Your task to perform on an android device: toggle notifications settings in the gmail app Image 0: 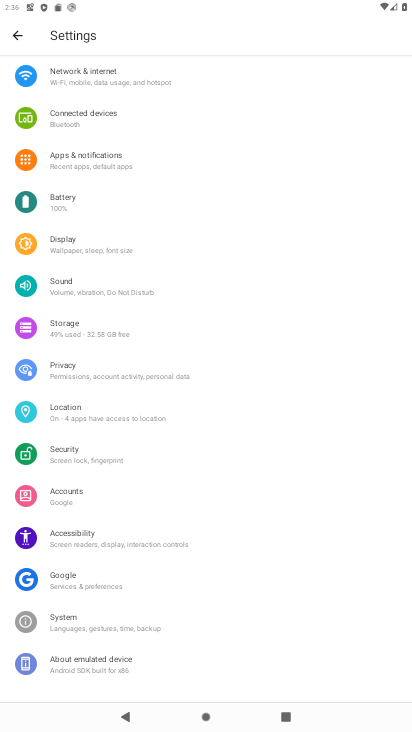
Step 0: press home button
Your task to perform on an android device: toggle notifications settings in the gmail app Image 1: 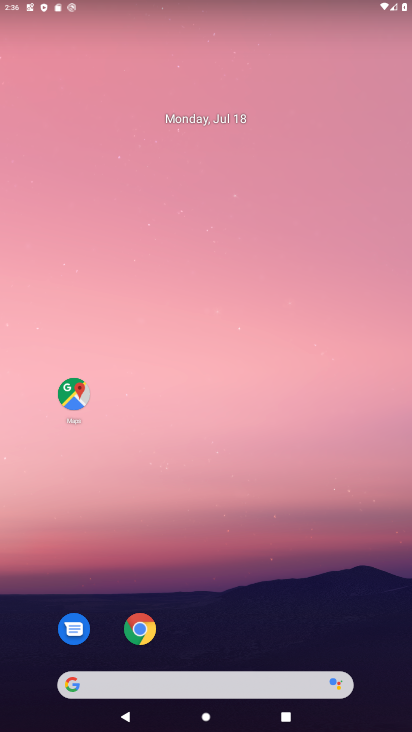
Step 1: drag from (205, 632) to (229, 108)
Your task to perform on an android device: toggle notifications settings in the gmail app Image 2: 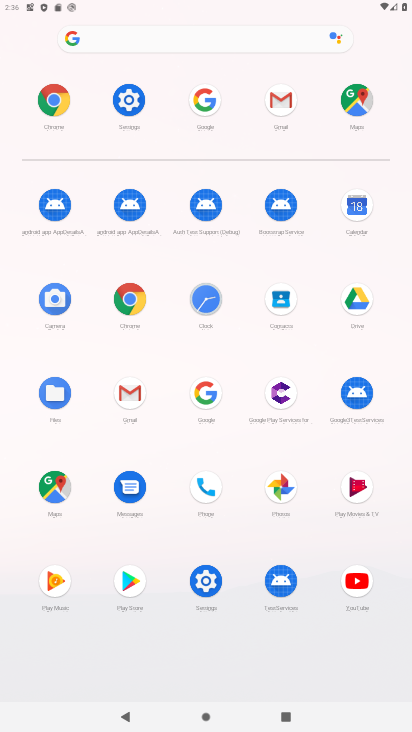
Step 2: click (272, 105)
Your task to perform on an android device: toggle notifications settings in the gmail app Image 3: 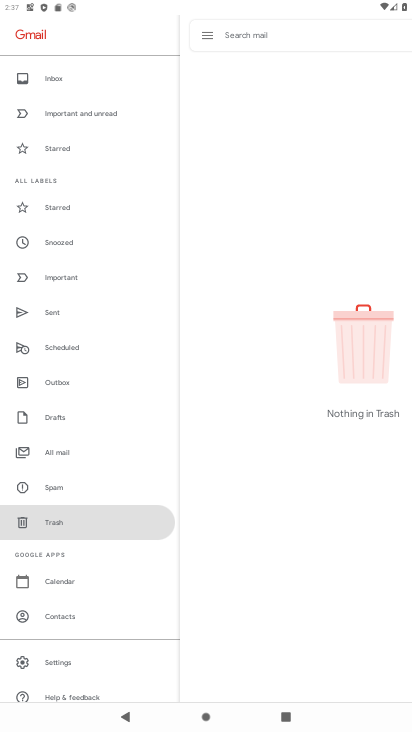
Step 3: click (76, 654)
Your task to perform on an android device: toggle notifications settings in the gmail app Image 4: 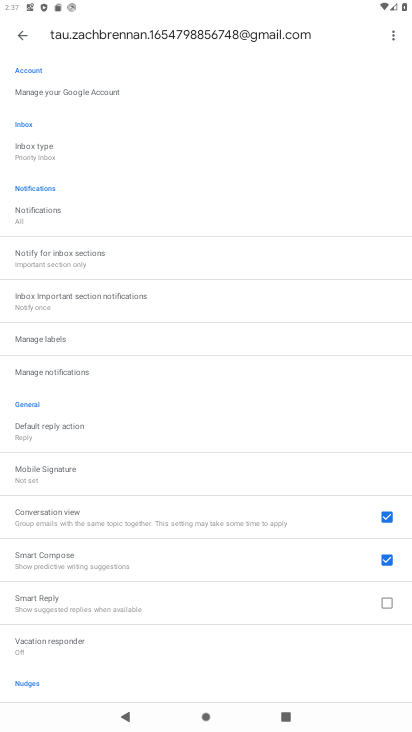
Step 4: click (79, 149)
Your task to perform on an android device: toggle notifications settings in the gmail app Image 5: 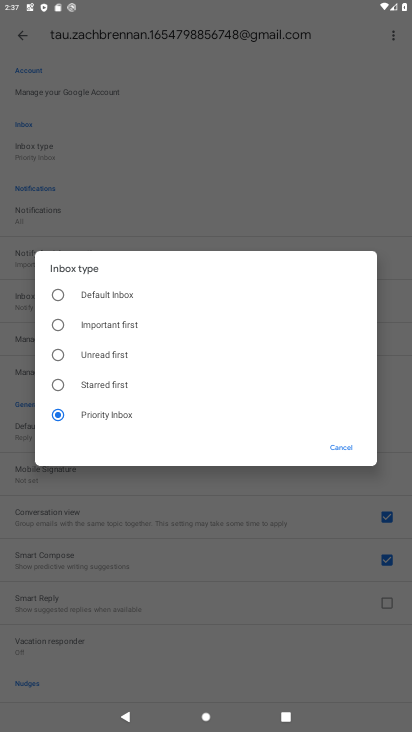
Step 5: click (163, 190)
Your task to perform on an android device: toggle notifications settings in the gmail app Image 6: 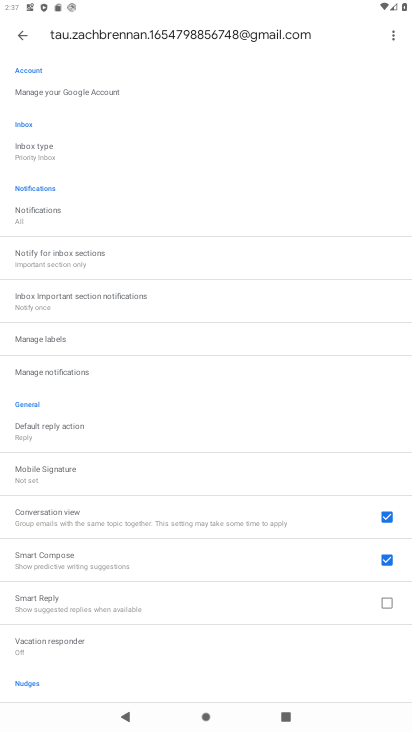
Step 6: click (91, 378)
Your task to perform on an android device: toggle notifications settings in the gmail app Image 7: 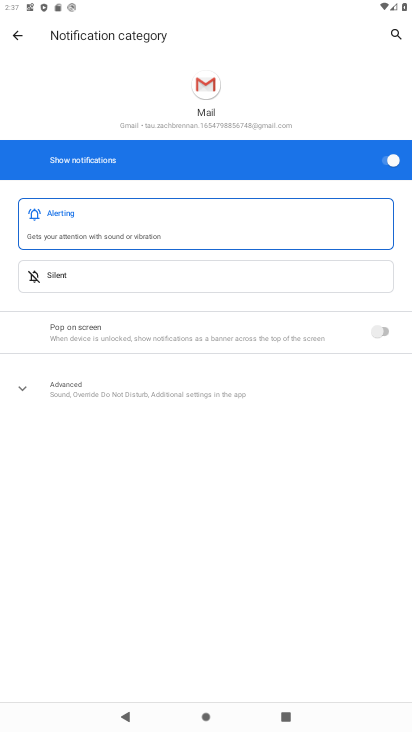
Step 7: click (380, 156)
Your task to perform on an android device: toggle notifications settings in the gmail app Image 8: 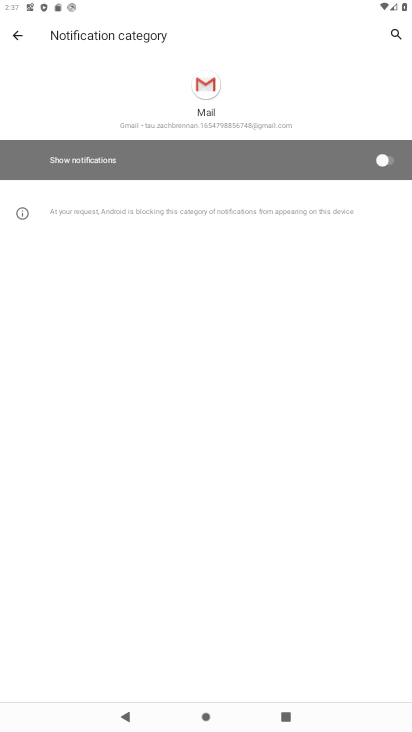
Step 8: task complete